Your task to perform on an android device: turn on wifi Image 0: 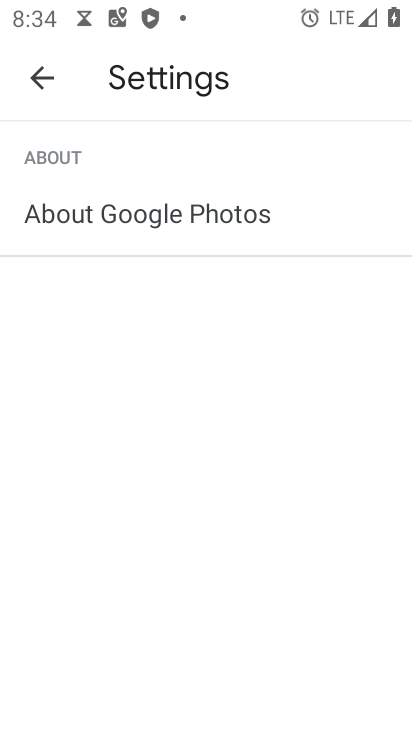
Step 0: click (30, 70)
Your task to perform on an android device: turn on wifi Image 1: 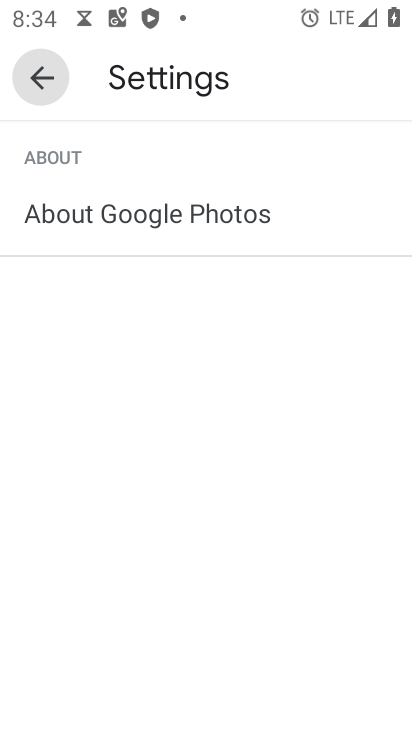
Step 1: click (31, 72)
Your task to perform on an android device: turn on wifi Image 2: 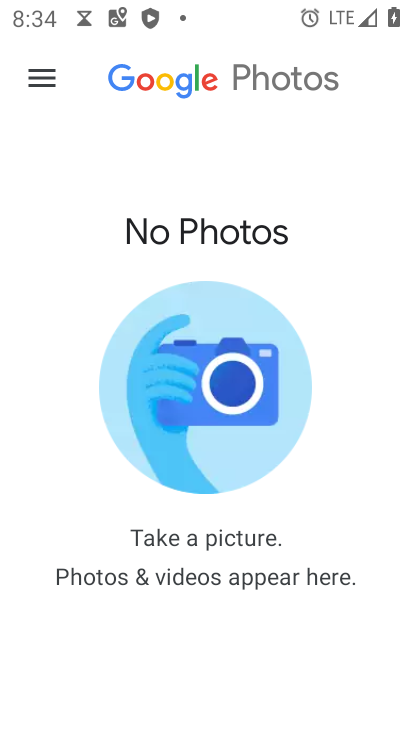
Step 2: press back button
Your task to perform on an android device: turn on wifi Image 3: 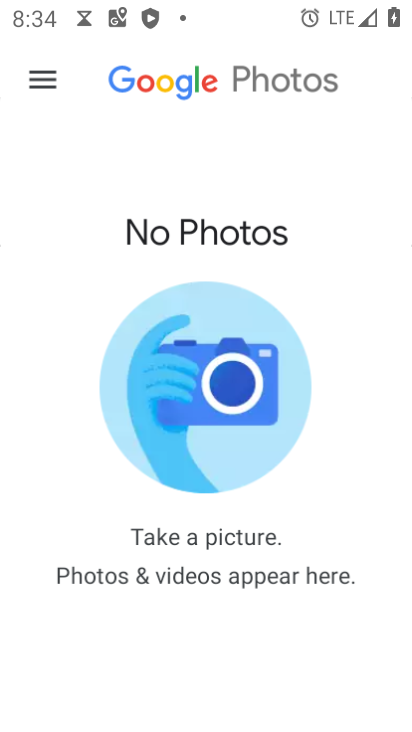
Step 3: press back button
Your task to perform on an android device: turn on wifi Image 4: 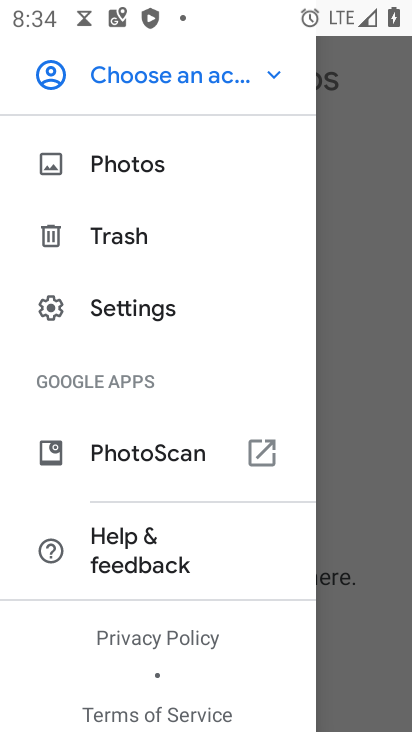
Step 4: press home button
Your task to perform on an android device: turn on wifi Image 5: 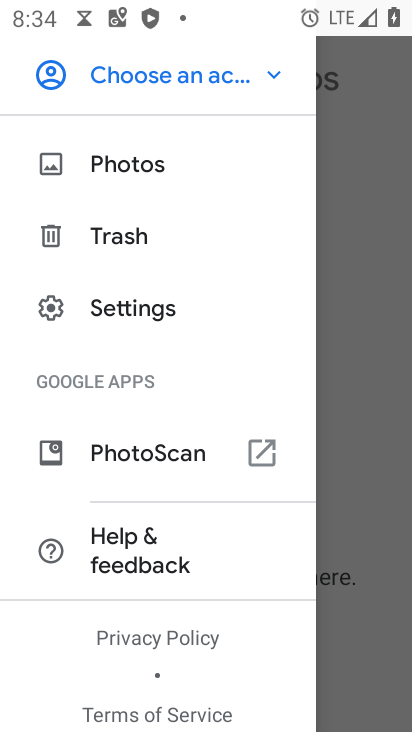
Step 5: press home button
Your task to perform on an android device: turn on wifi Image 6: 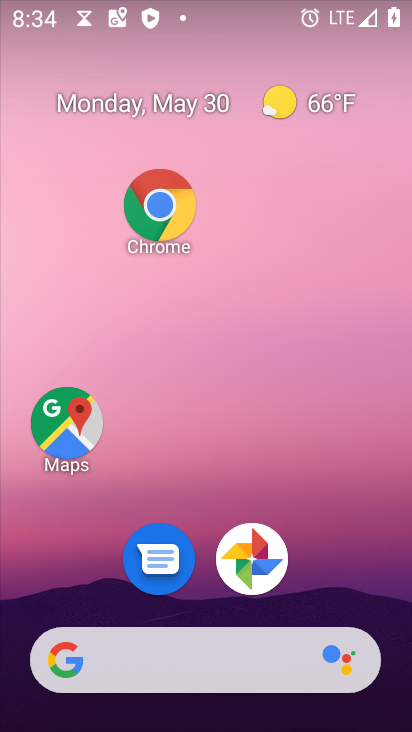
Step 6: drag from (293, 616) to (211, 187)
Your task to perform on an android device: turn on wifi Image 7: 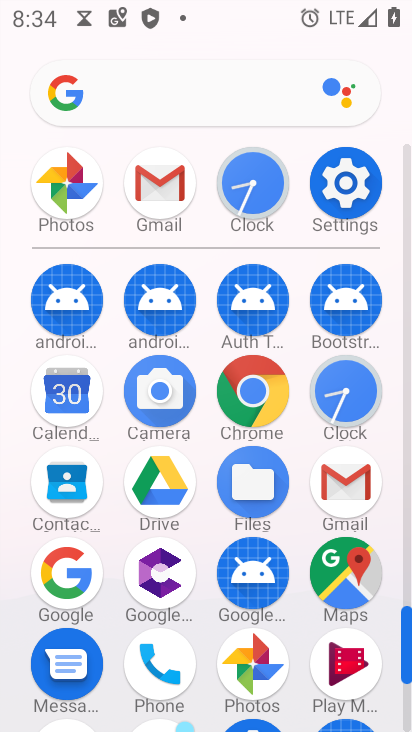
Step 7: click (336, 183)
Your task to perform on an android device: turn on wifi Image 8: 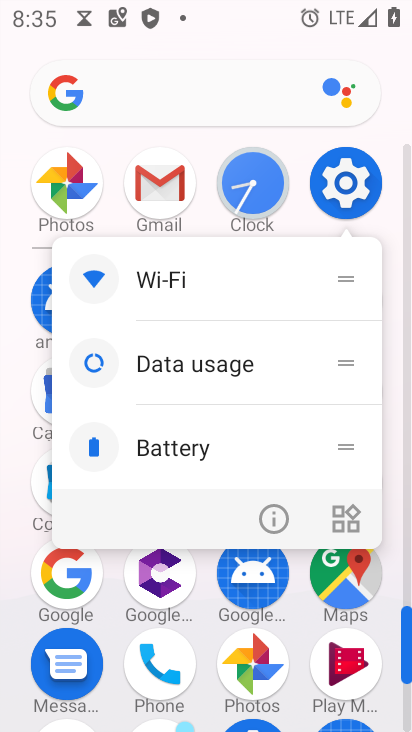
Step 8: click (187, 283)
Your task to perform on an android device: turn on wifi Image 9: 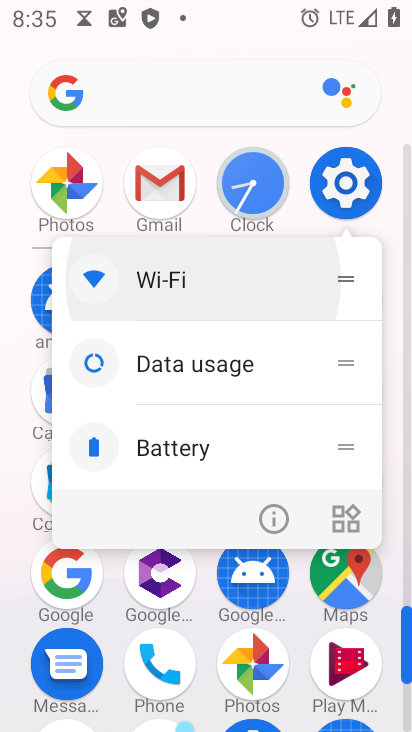
Step 9: click (186, 283)
Your task to perform on an android device: turn on wifi Image 10: 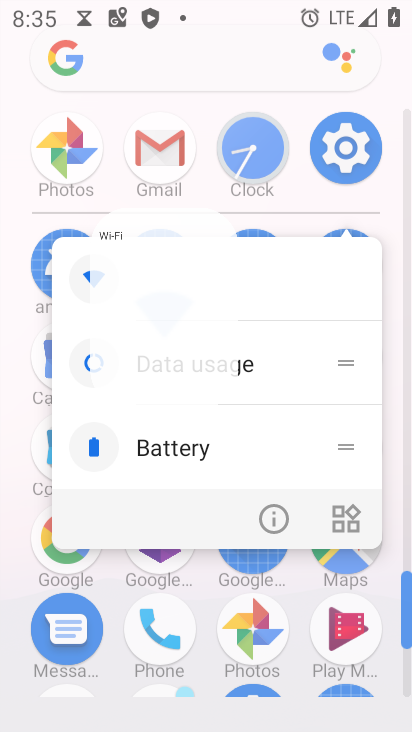
Step 10: click (182, 279)
Your task to perform on an android device: turn on wifi Image 11: 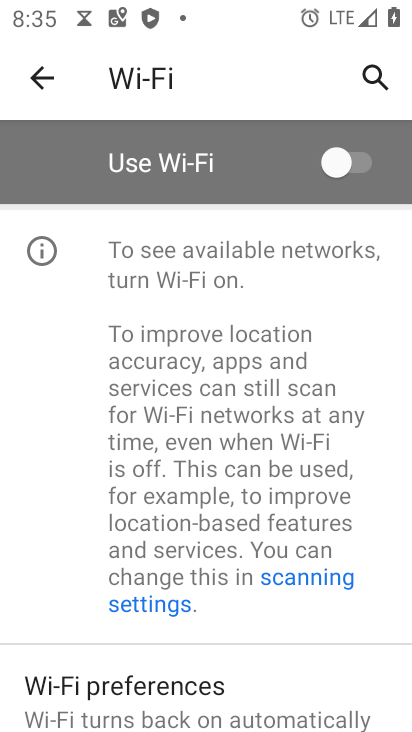
Step 11: click (322, 154)
Your task to perform on an android device: turn on wifi Image 12: 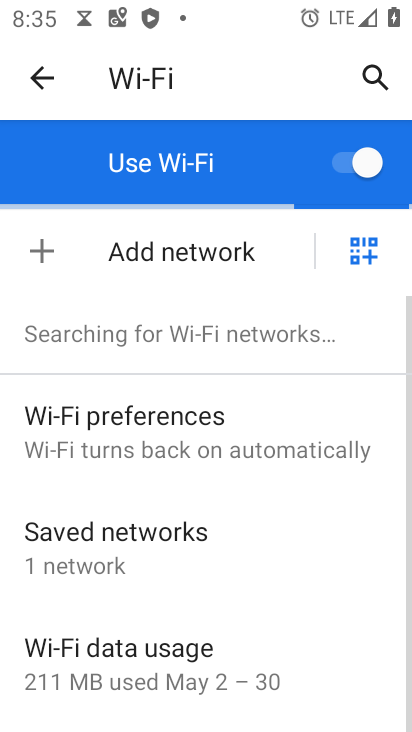
Step 12: task complete